Your task to perform on an android device: turn off notifications settings in the gmail app Image 0: 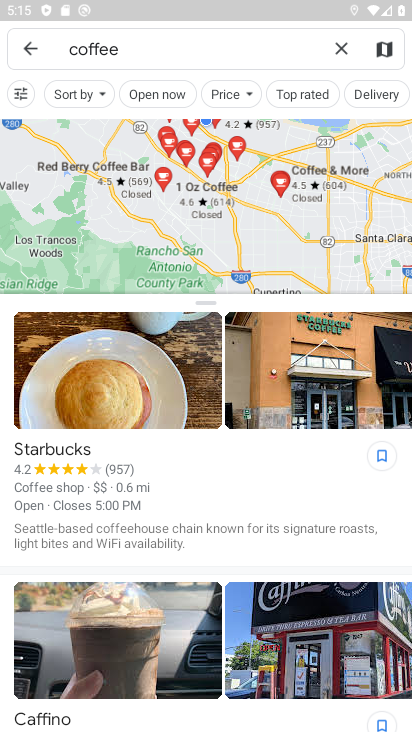
Step 0: press home button
Your task to perform on an android device: turn off notifications settings in the gmail app Image 1: 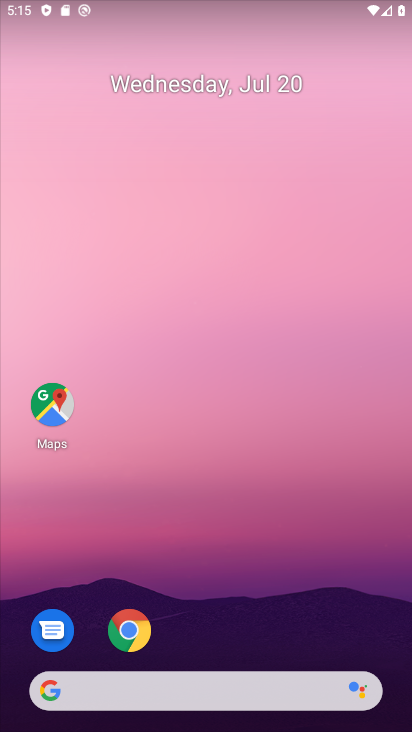
Step 1: drag from (325, 704) to (334, 122)
Your task to perform on an android device: turn off notifications settings in the gmail app Image 2: 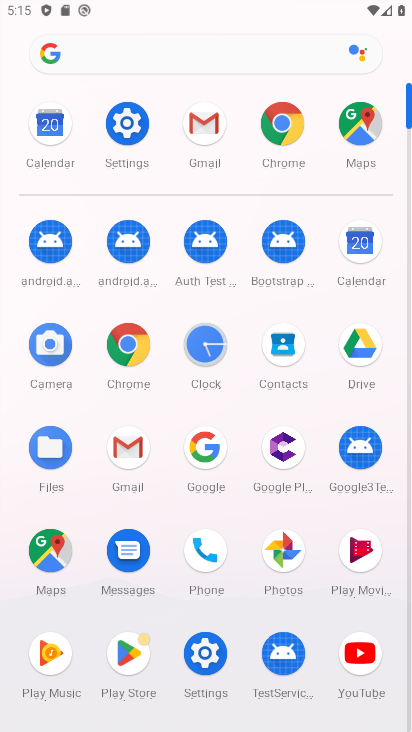
Step 2: click (117, 136)
Your task to perform on an android device: turn off notifications settings in the gmail app Image 3: 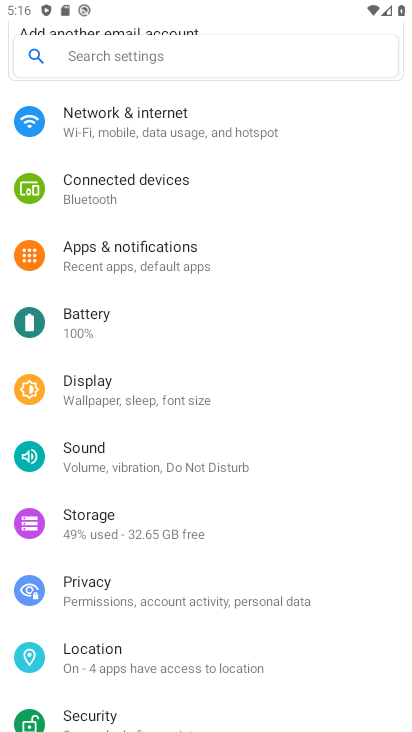
Step 3: click (177, 265)
Your task to perform on an android device: turn off notifications settings in the gmail app Image 4: 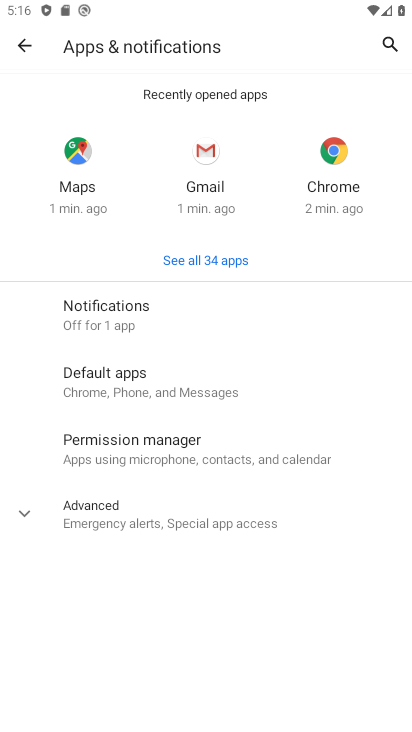
Step 4: click (147, 316)
Your task to perform on an android device: turn off notifications settings in the gmail app Image 5: 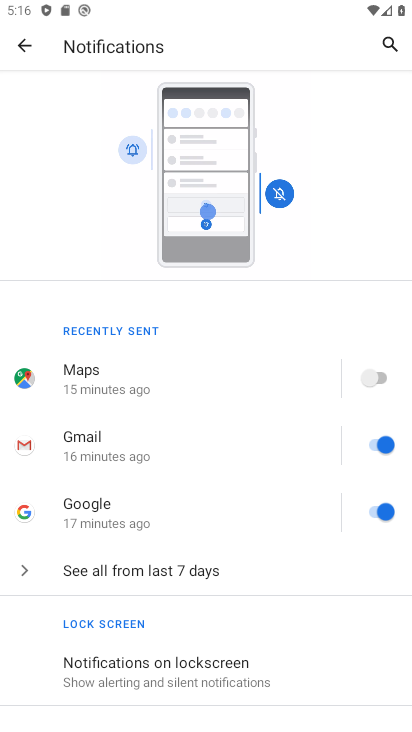
Step 5: click (381, 445)
Your task to perform on an android device: turn off notifications settings in the gmail app Image 6: 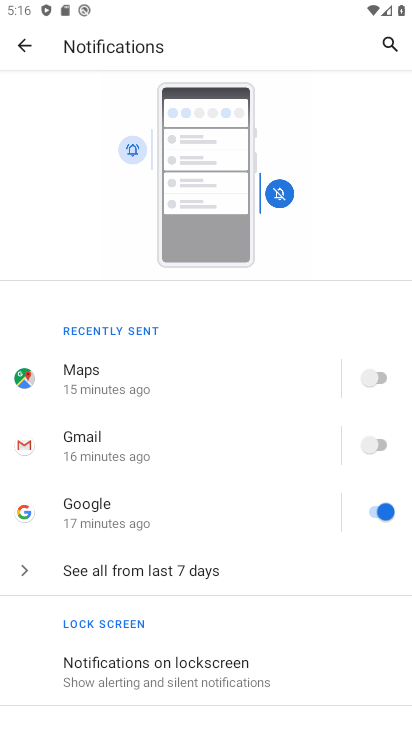
Step 6: task complete